Your task to perform on an android device: install app "Messages" Image 0: 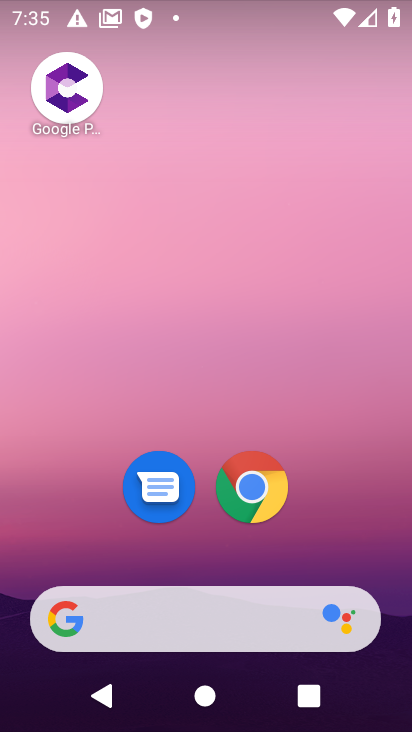
Step 0: drag from (370, 540) to (384, 78)
Your task to perform on an android device: install app "Messages" Image 1: 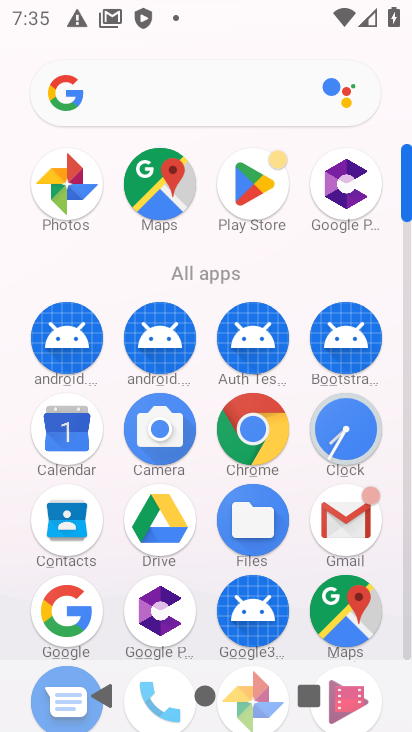
Step 1: click (250, 190)
Your task to perform on an android device: install app "Messages" Image 2: 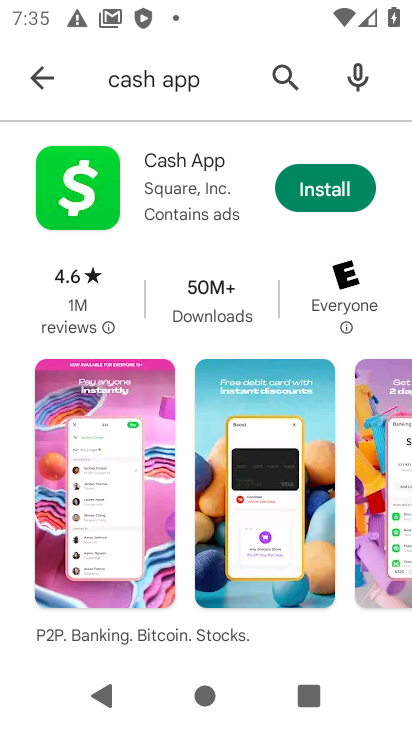
Step 2: click (280, 86)
Your task to perform on an android device: install app "Messages" Image 3: 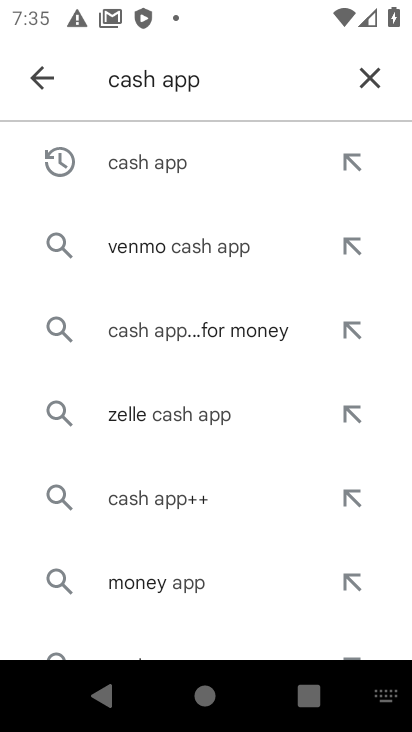
Step 3: click (377, 76)
Your task to perform on an android device: install app "Messages" Image 4: 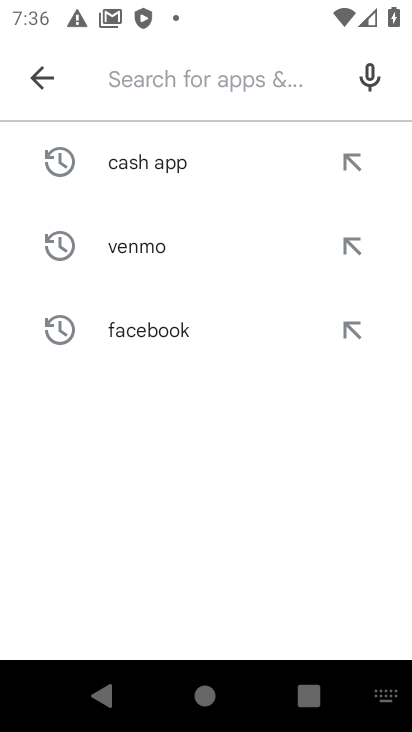
Step 4: type "messages"
Your task to perform on an android device: install app "Messages" Image 5: 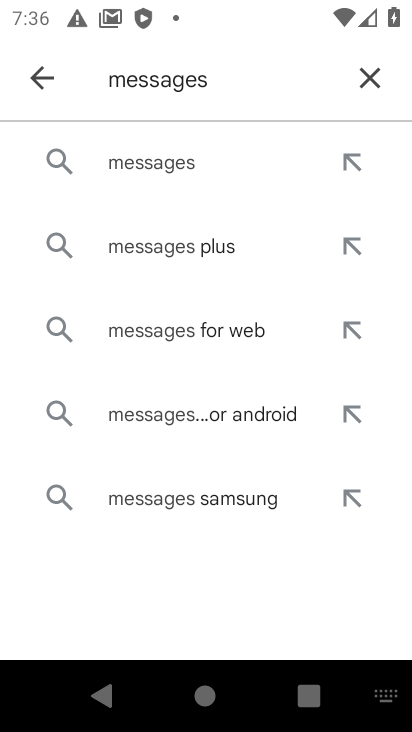
Step 5: click (206, 165)
Your task to perform on an android device: install app "Messages" Image 6: 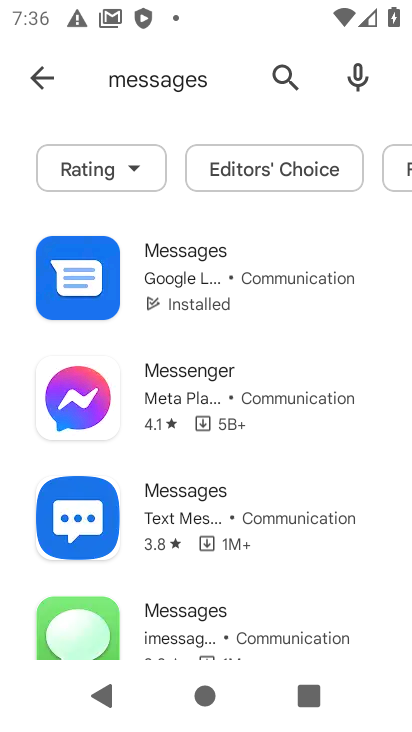
Step 6: click (199, 268)
Your task to perform on an android device: install app "Messages" Image 7: 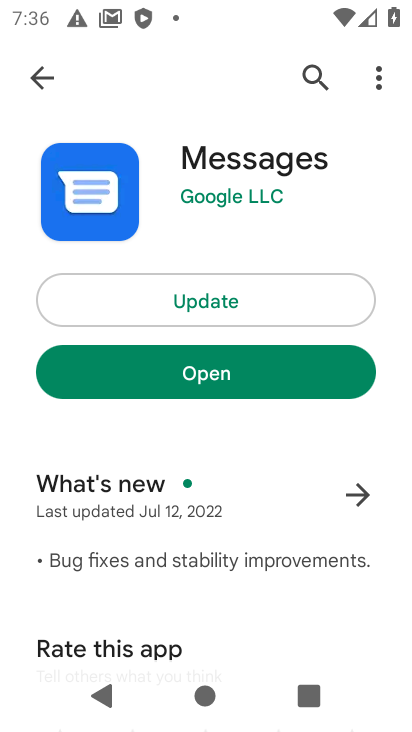
Step 7: task complete